Your task to perform on an android device: Open the map Image 0: 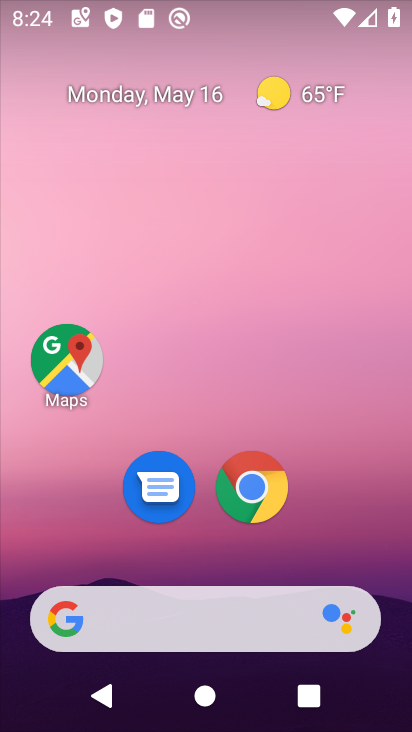
Step 0: drag from (330, 538) to (301, 149)
Your task to perform on an android device: Open the map Image 1: 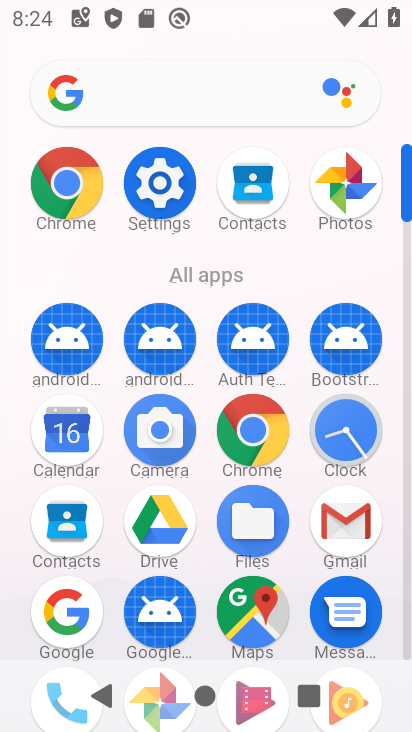
Step 1: click (244, 629)
Your task to perform on an android device: Open the map Image 2: 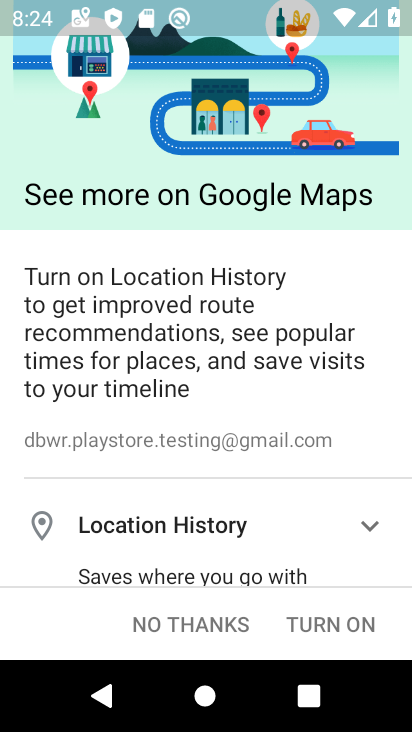
Step 2: task complete